Your task to perform on an android device: Check the weather Image 0: 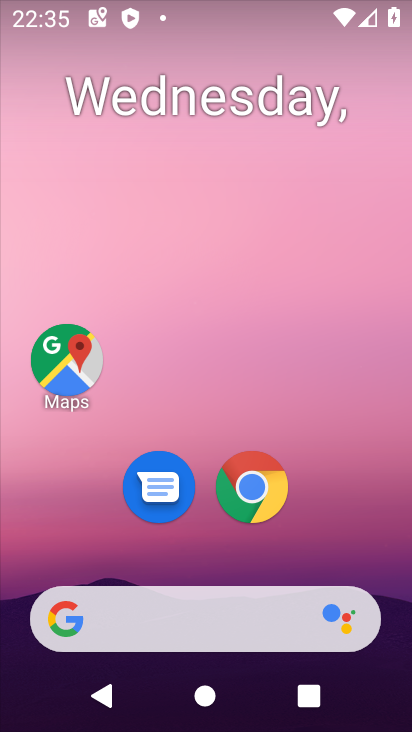
Step 0: click (191, 616)
Your task to perform on an android device: Check the weather Image 1: 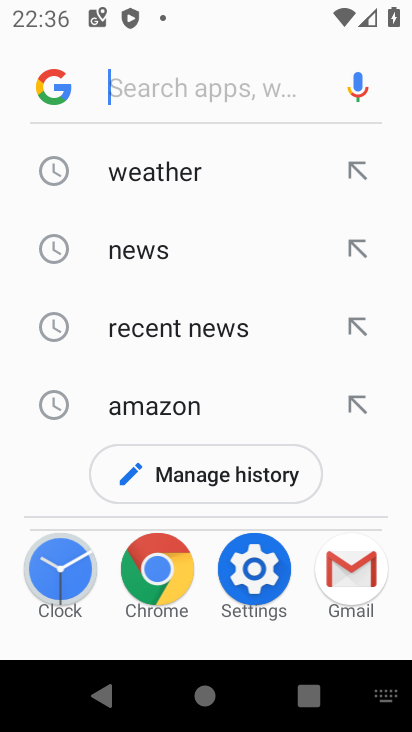
Step 1: type "Check the weather"
Your task to perform on an android device: Check the weather Image 2: 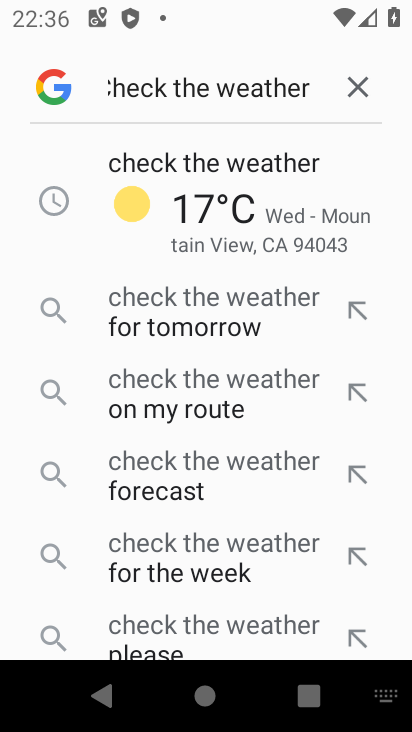
Step 2: click (274, 235)
Your task to perform on an android device: Check the weather Image 3: 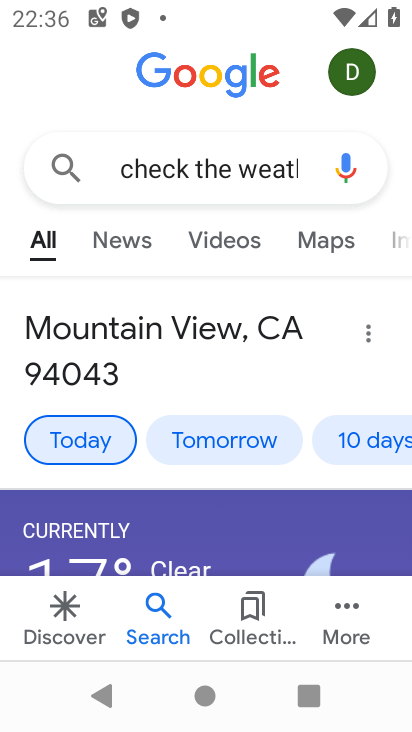
Step 3: task complete